Your task to perform on an android device: Open Google Chrome and open the bookmarks view Image 0: 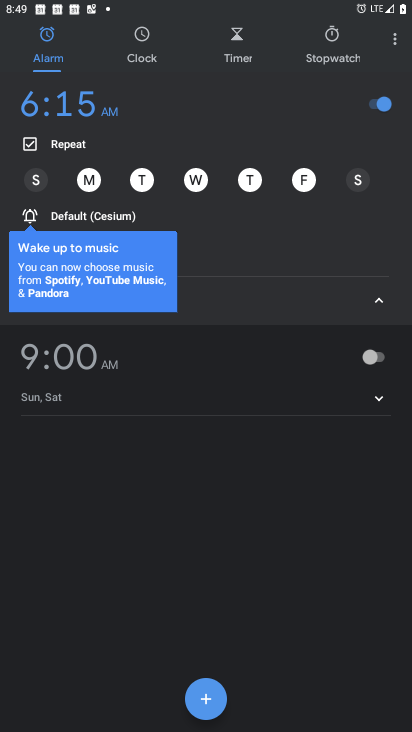
Step 0: press home button
Your task to perform on an android device: Open Google Chrome and open the bookmarks view Image 1: 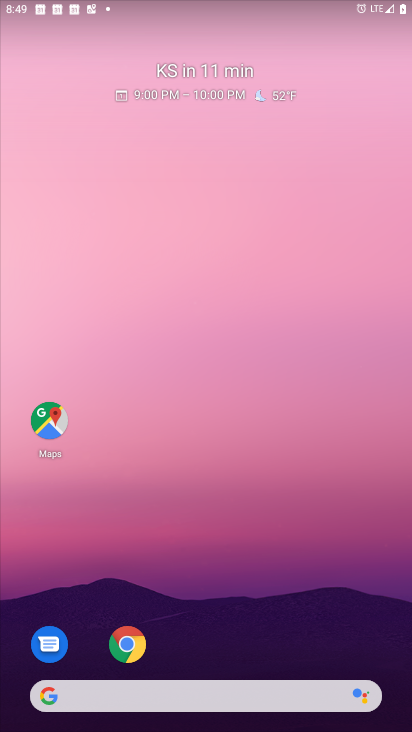
Step 1: click (127, 638)
Your task to perform on an android device: Open Google Chrome and open the bookmarks view Image 2: 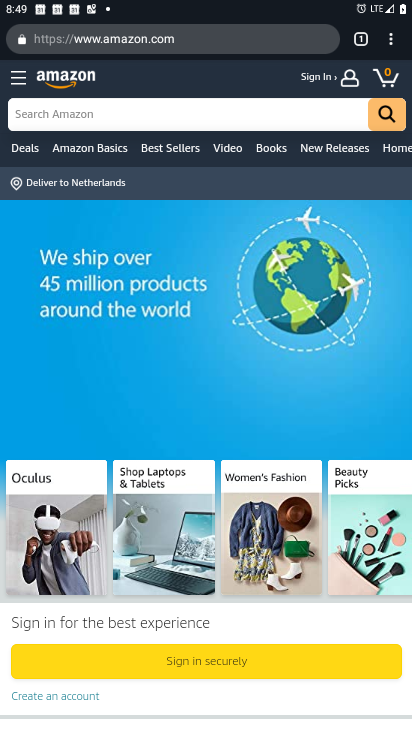
Step 2: click (390, 43)
Your task to perform on an android device: Open Google Chrome and open the bookmarks view Image 3: 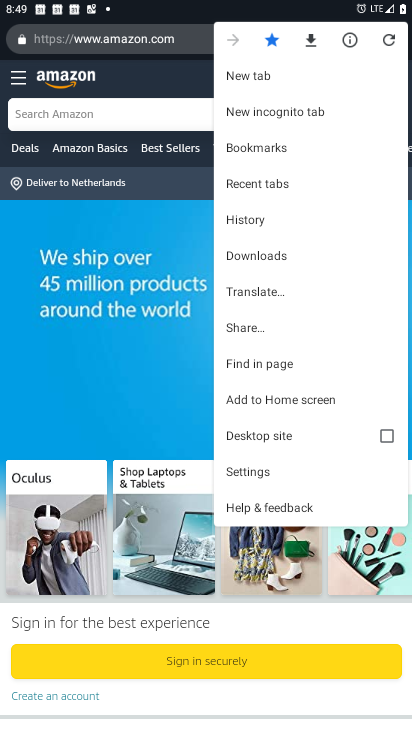
Step 3: click (255, 147)
Your task to perform on an android device: Open Google Chrome and open the bookmarks view Image 4: 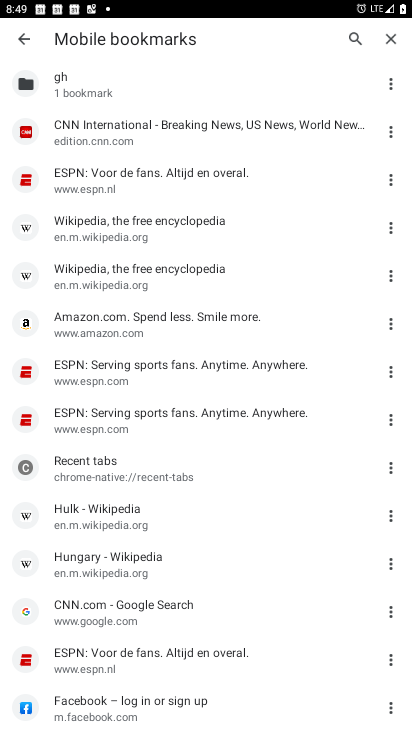
Step 4: task complete